Your task to perform on an android device: Open Reddit.com Image 0: 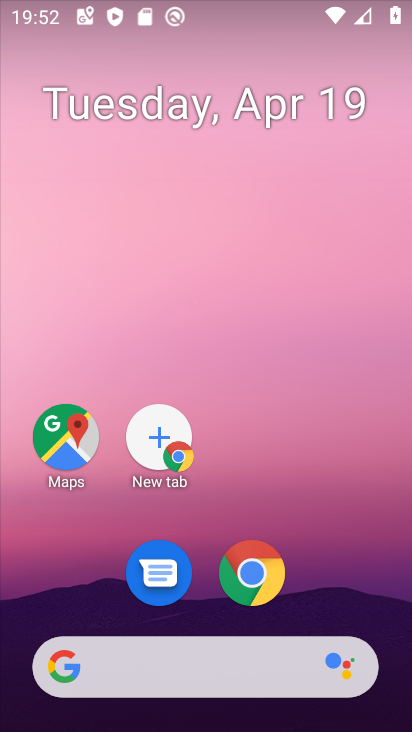
Step 0: click (258, 563)
Your task to perform on an android device: Open Reddit.com Image 1: 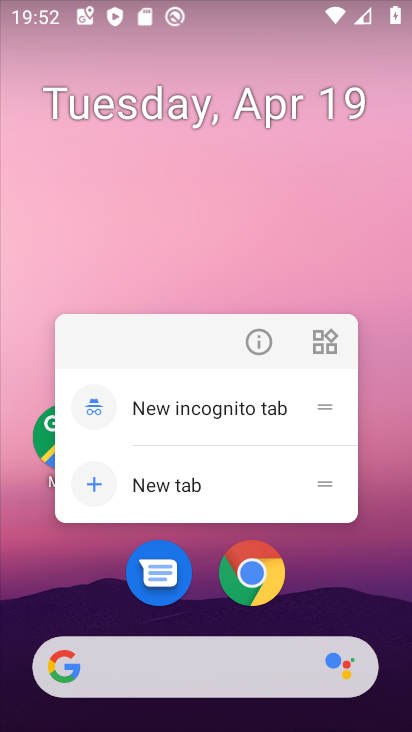
Step 1: click (250, 560)
Your task to perform on an android device: Open Reddit.com Image 2: 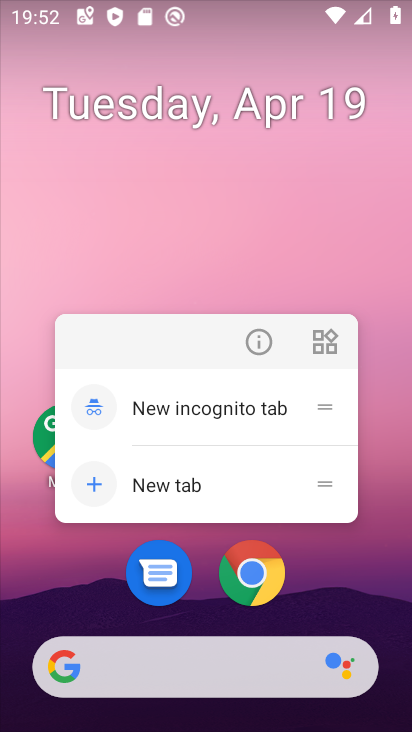
Step 2: click (250, 560)
Your task to perform on an android device: Open Reddit.com Image 3: 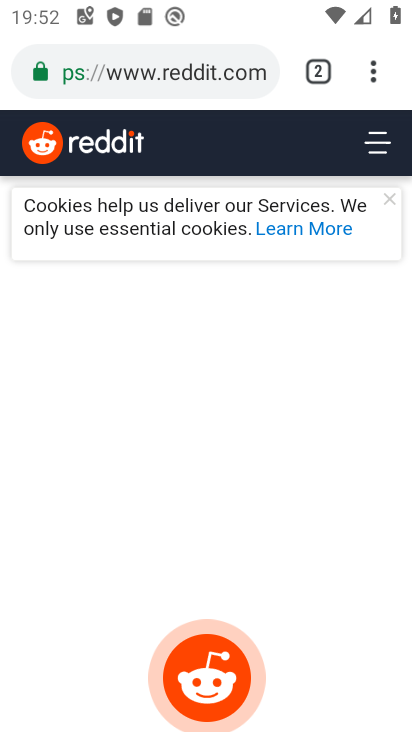
Step 3: task complete